Your task to perform on an android device: Open wifi settings Image 0: 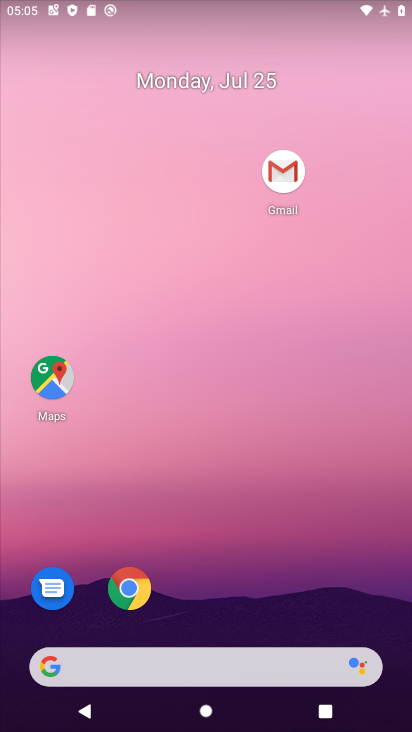
Step 0: drag from (311, 523) to (224, 56)
Your task to perform on an android device: Open wifi settings Image 1: 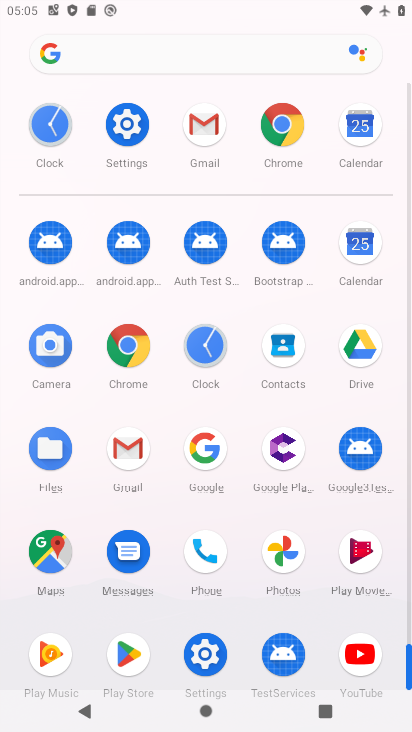
Step 1: click (122, 118)
Your task to perform on an android device: Open wifi settings Image 2: 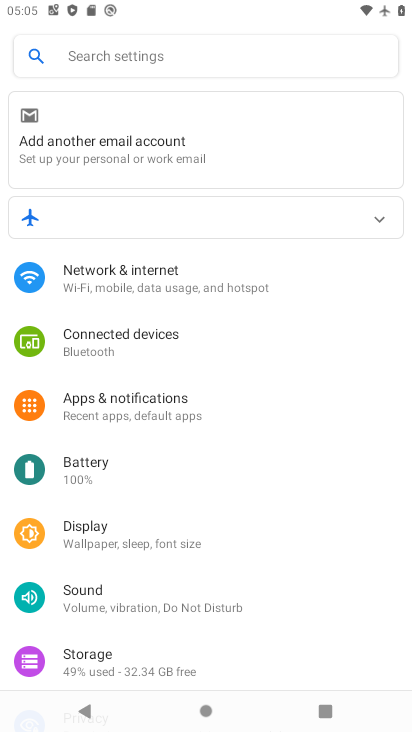
Step 2: click (117, 280)
Your task to perform on an android device: Open wifi settings Image 3: 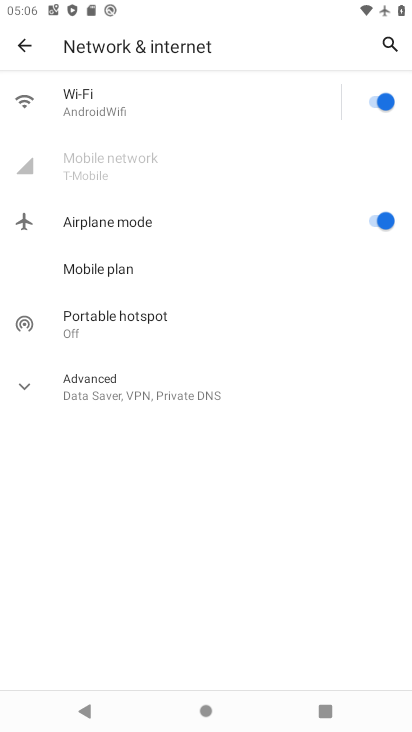
Step 3: click (118, 111)
Your task to perform on an android device: Open wifi settings Image 4: 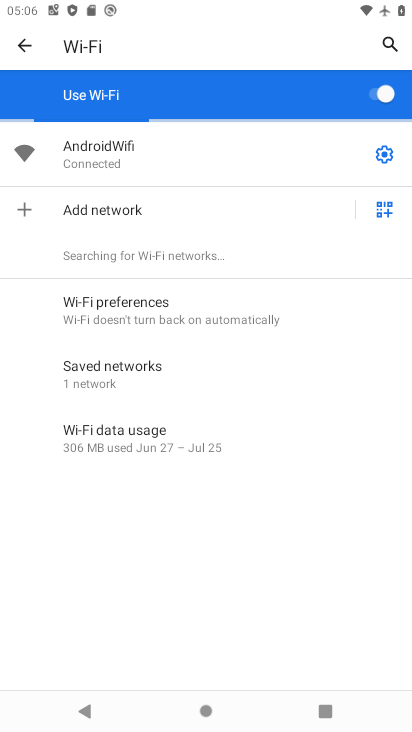
Step 4: click (385, 152)
Your task to perform on an android device: Open wifi settings Image 5: 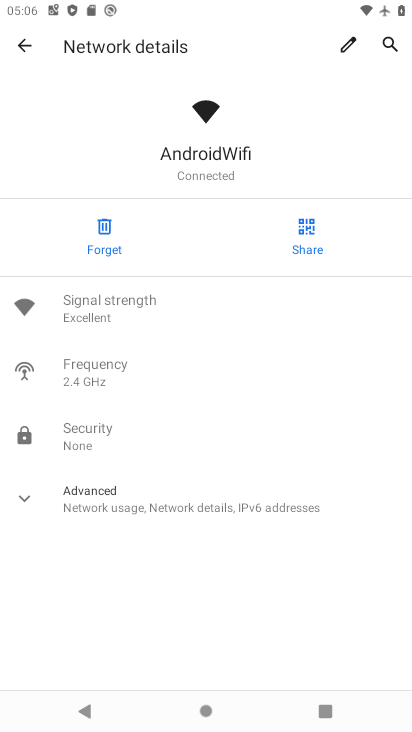
Step 5: task complete